Your task to perform on an android device: check android version Image 0: 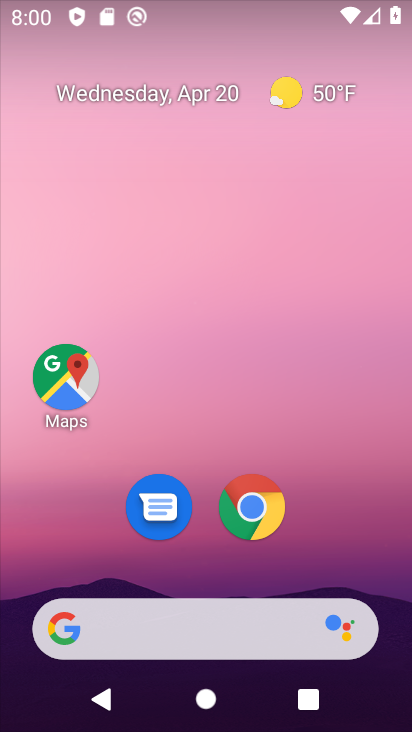
Step 0: drag from (136, 623) to (185, 303)
Your task to perform on an android device: check android version Image 1: 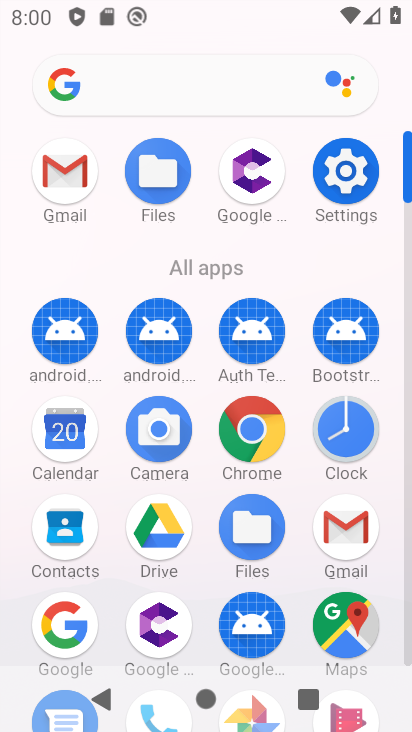
Step 1: click (351, 175)
Your task to perform on an android device: check android version Image 2: 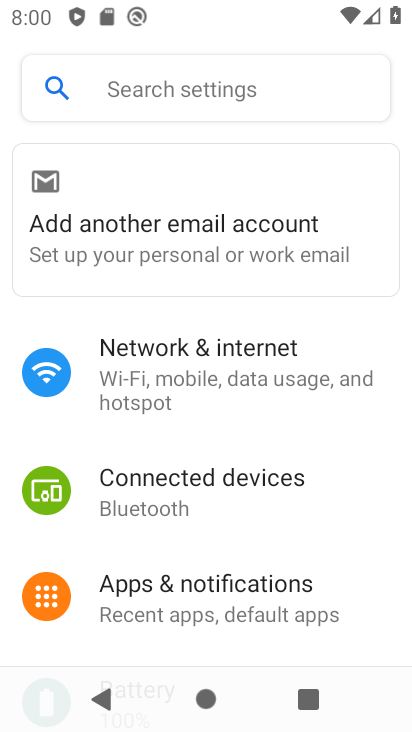
Step 2: drag from (229, 599) to (269, 302)
Your task to perform on an android device: check android version Image 3: 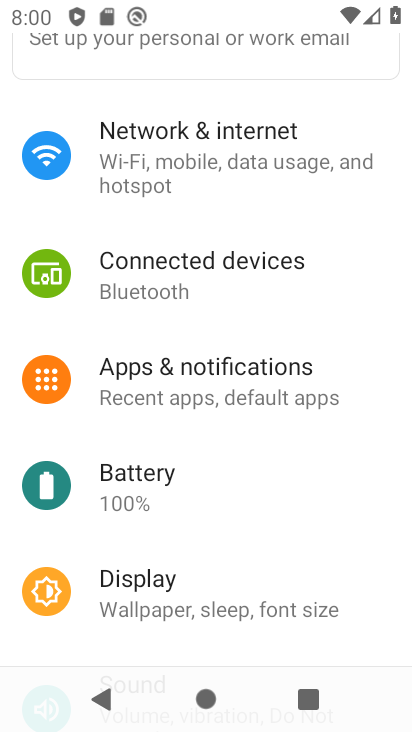
Step 3: drag from (202, 548) to (239, 133)
Your task to perform on an android device: check android version Image 4: 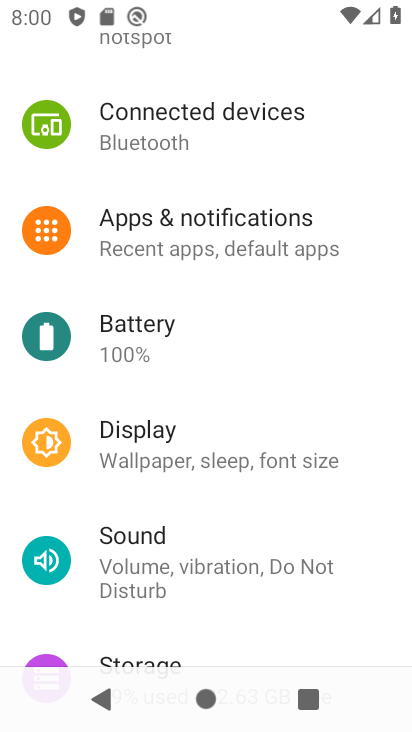
Step 4: drag from (193, 608) to (202, 117)
Your task to perform on an android device: check android version Image 5: 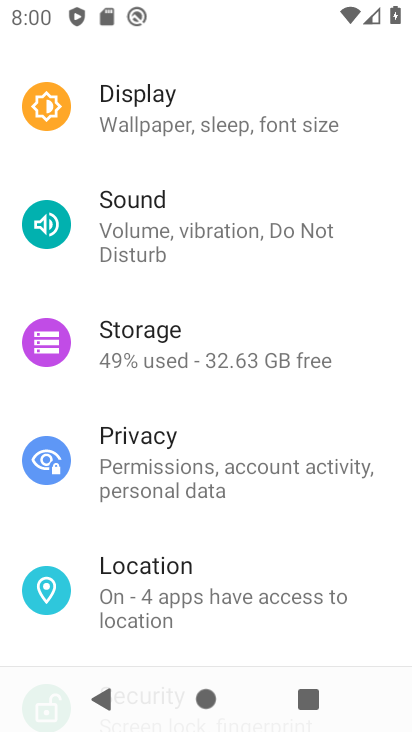
Step 5: drag from (168, 601) to (228, 151)
Your task to perform on an android device: check android version Image 6: 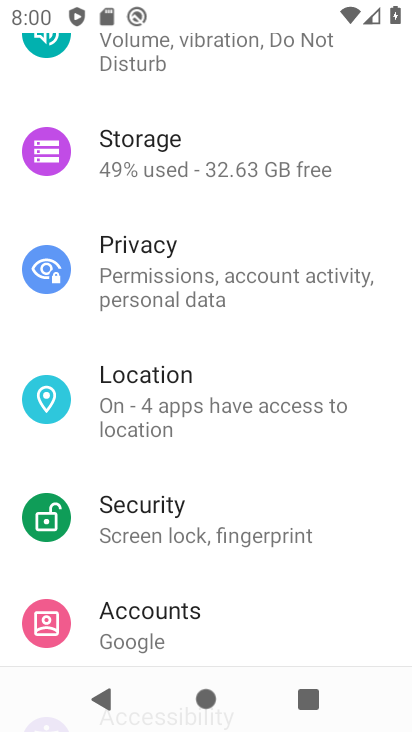
Step 6: drag from (204, 642) to (239, 251)
Your task to perform on an android device: check android version Image 7: 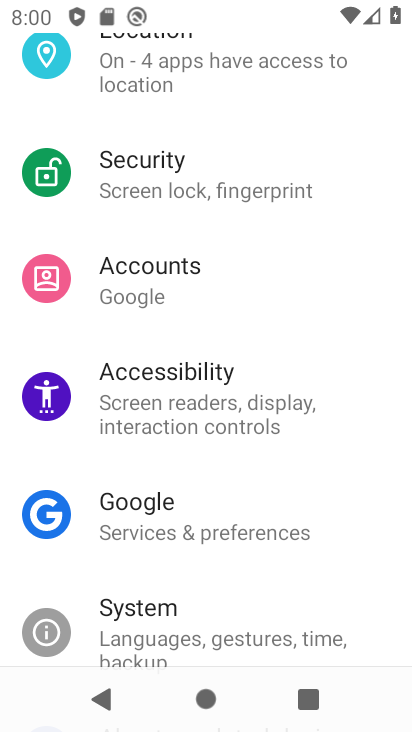
Step 7: drag from (217, 630) to (210, 420)
Your task to perform on an android device: check android version Image 8: 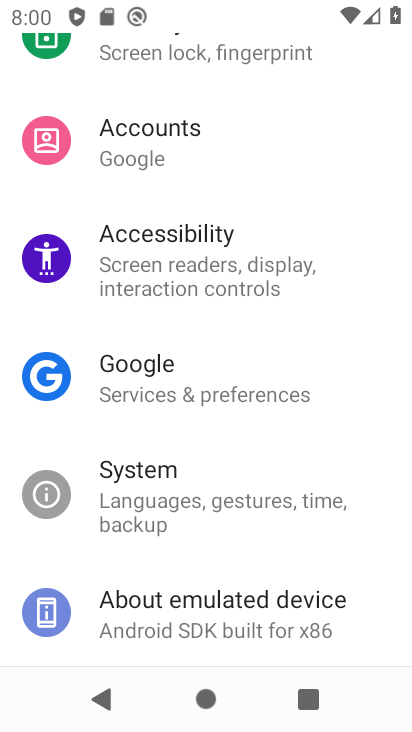
Step 8: click (214, 624)
Your task to perform on an android device: check android version Image 9: 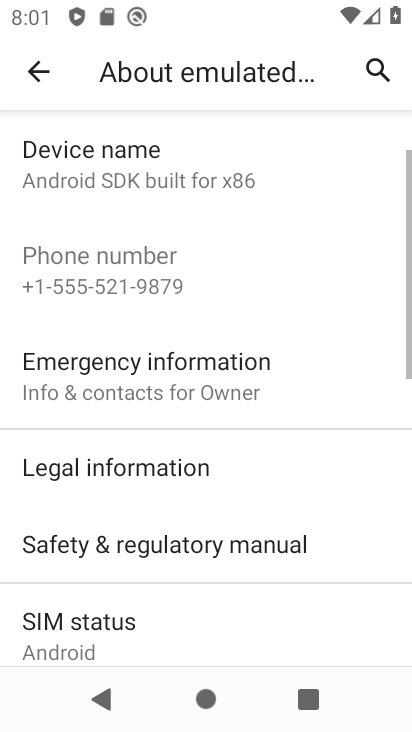
Step 9: drag from (189, 631) to (219, 305)
Your task to perform on an android device: check android version Image 10: 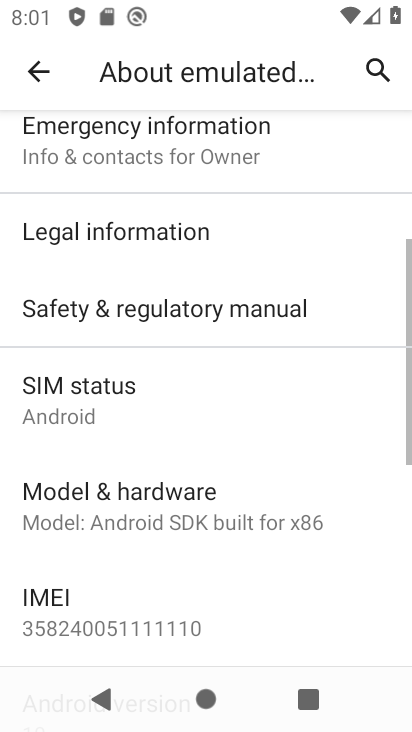
Step 10: drag from (169, 590) to (211, 345)
Your task to perform on an android device: check android version Image 11: 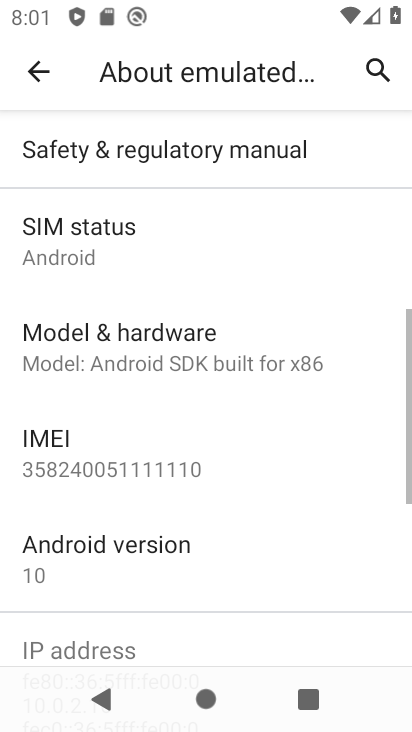
Step 11: click (239, 556)
Your task to perform on an android device: check android version Image 12: 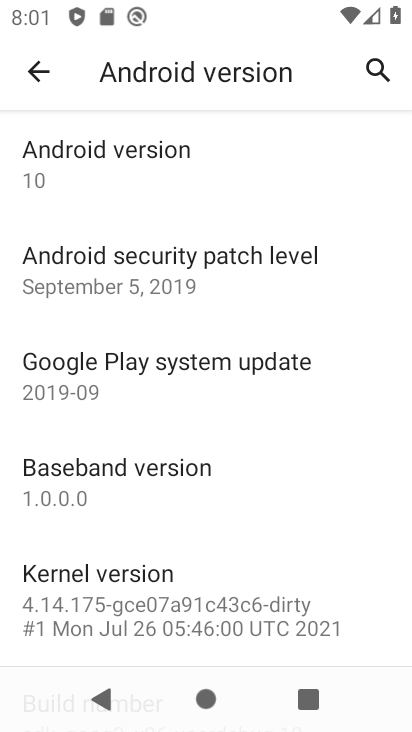
Step 12: task complete